Your task to perform on an android device: Open notification settings Image 0: 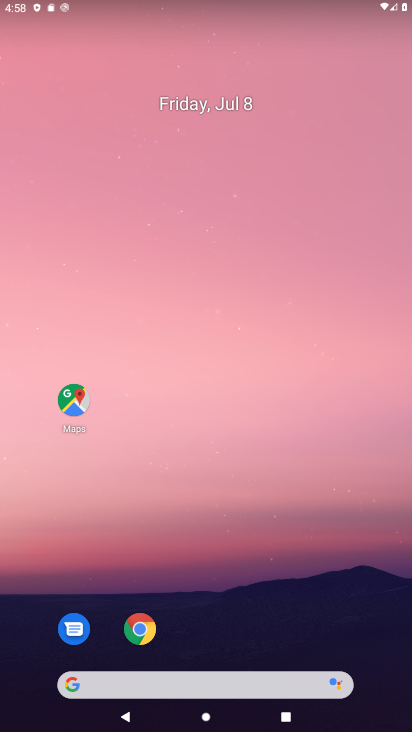
Step 0: drag from (217, 659) to (286, 80)
Your task to perform on an android device: Open notification settings Image 1: 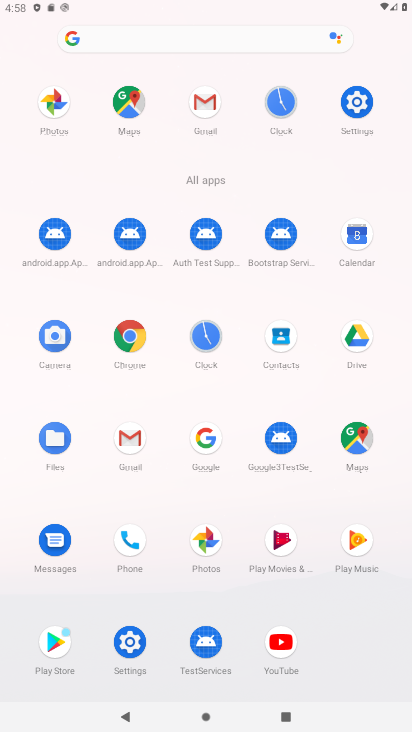
Step 1: click (357, 105)
Your task to perform on an android device: Open notification settings Image 2: 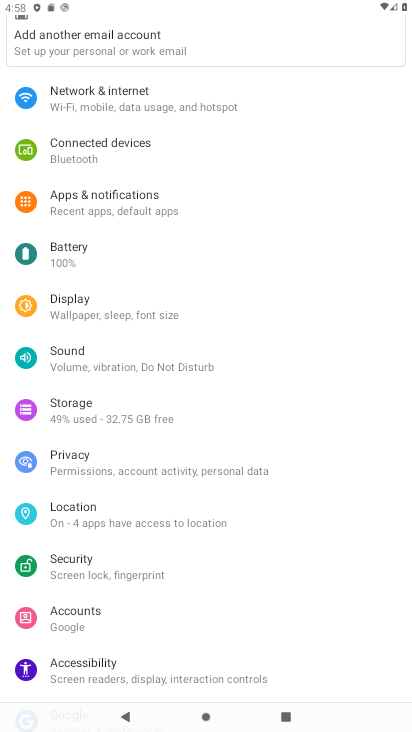
Step 2: click (129, 202)
Your task to perform on an android device: Open notification settings Image 3: 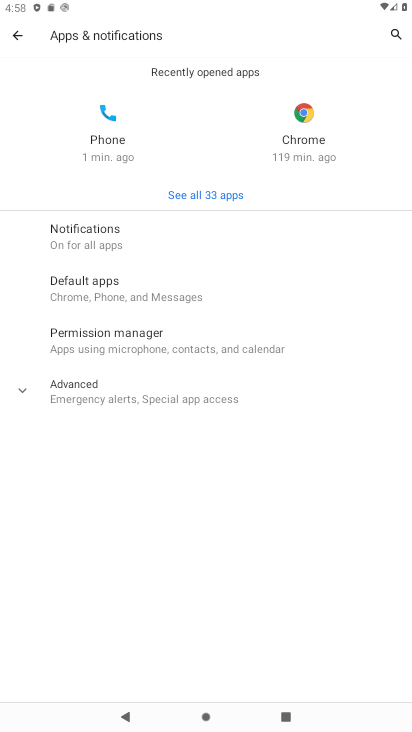
Step 3: click (99, 236)
Your task to perform on an android device: Open notification settings Image 4: 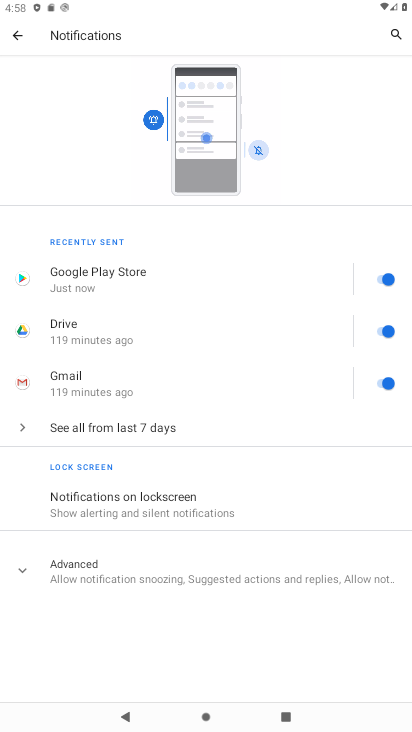
Step 4: task complete